Your task to perform on an android device: Go to Android settings Image 0: 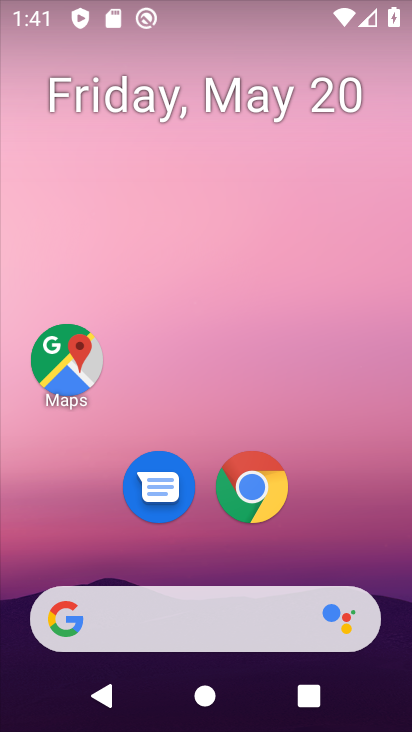
Step 0: drag from (365, 412) to (356, 25)
Your task to perform on an android device: Go to Android settings Image 1: 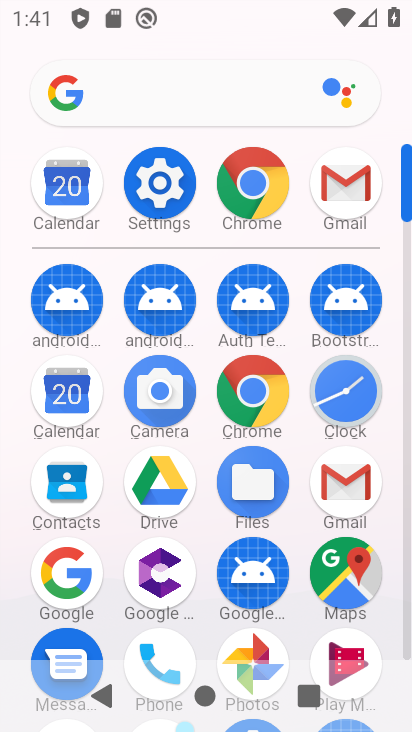
Step 1: click (156, 169)
Your task to perform on an android device: Go to Android settings Image 2: 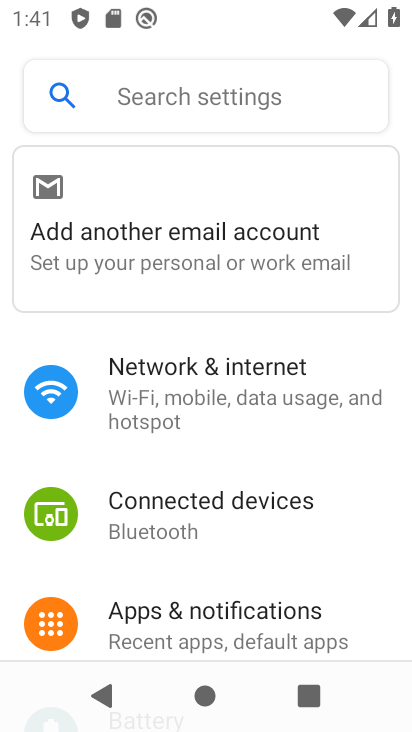
Step 2: drag from (289, 540) to (335, 95)
Your task to perform on an android device: Go to Android settings Image 3: 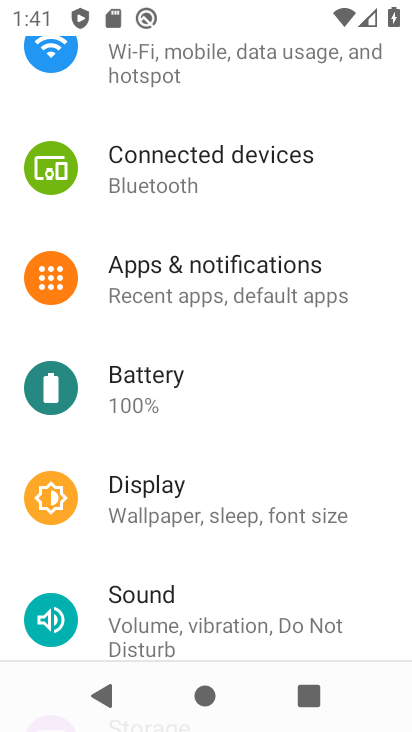
Step 3: drag from (365, 533) to (361, 103)
Your task to perform on an android device: Go to Android settings Image 4: 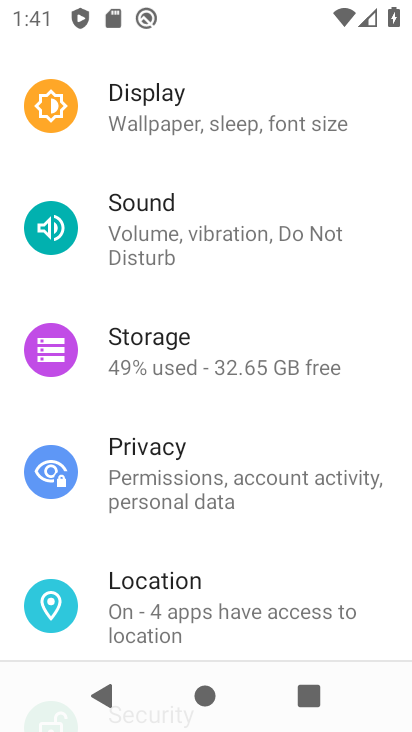
Step 4: drag from (256, 524) to (272, 161)
Your task to perform on an android device: Go to Android settings Image 5: 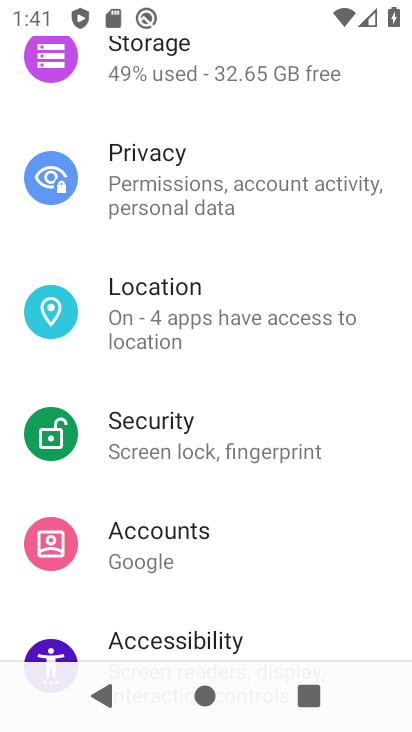
Step 5: drag from (272, 503) to (316, 137)
Your task to perform on an android device: Go to Android settings Image 6: 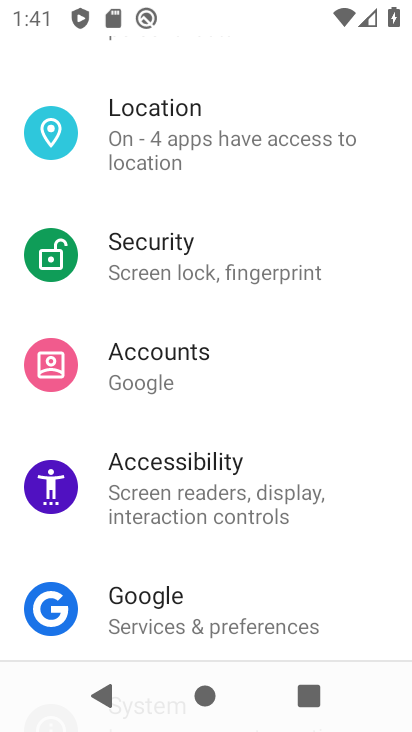
Step 6: drag from (254, 579) to (267, 212)
Your task to perform on an android device: Go to Android settings Image 7: 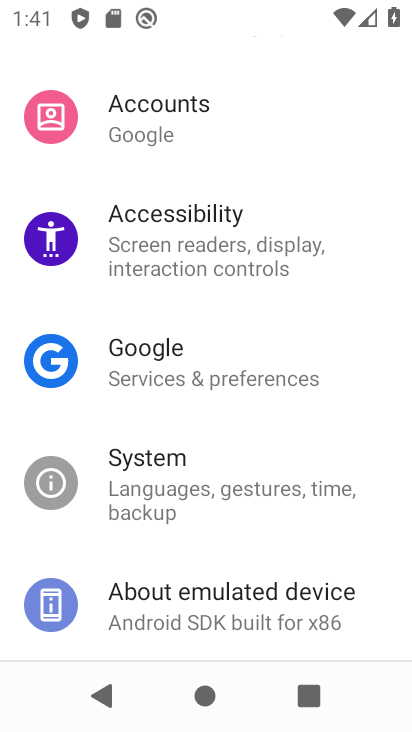
Step 7: drag from (240, 582) to (244, 221)
Your task to perform on an android device: Go to Android settings Image 8: 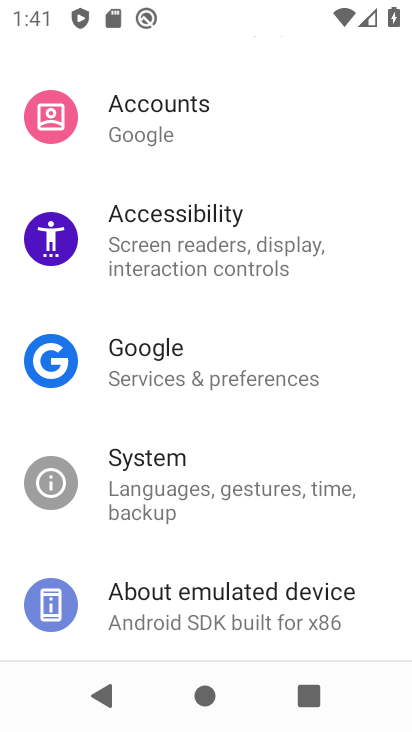
Step 8: click (207, 600)
Your task to perform on an android device: Go to Android settings Image 9: 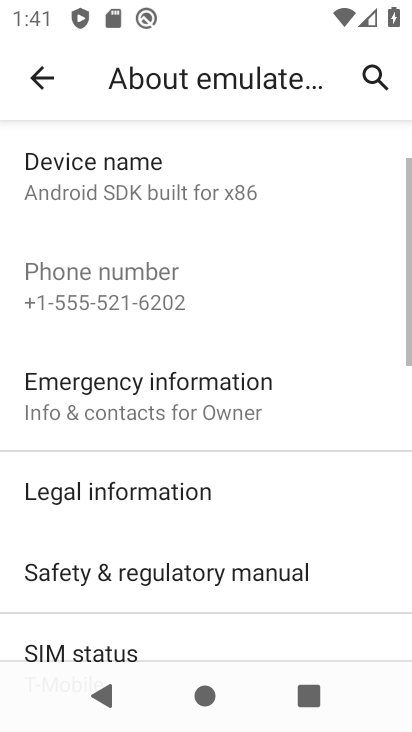
Step 9: task complete